Your task to perform on an android device: turn off location history Image 0: 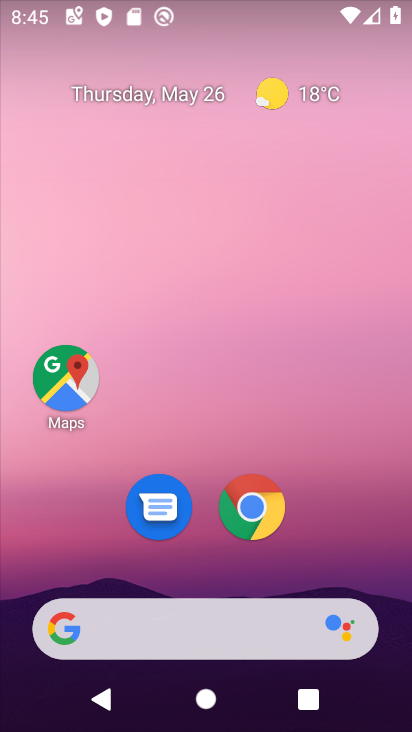
Step 0: press home button
Your task to perform on an android device: turn off location history Image 1: 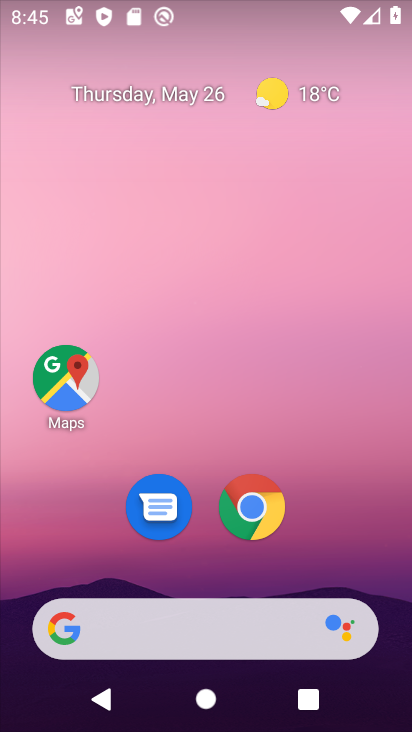
Step 1: drag from (260, 630) to (223, 44)
Your task to perform on an android device: turn off location history Image 2: 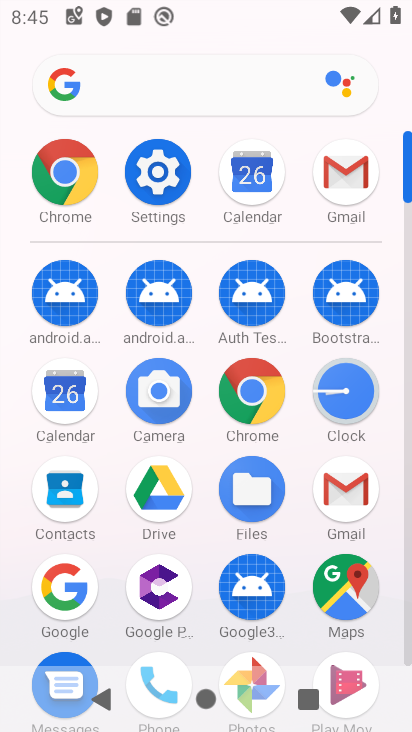
Step 2: click (161, 184)
Your task to perform on an android device: turn off location history Image 3: 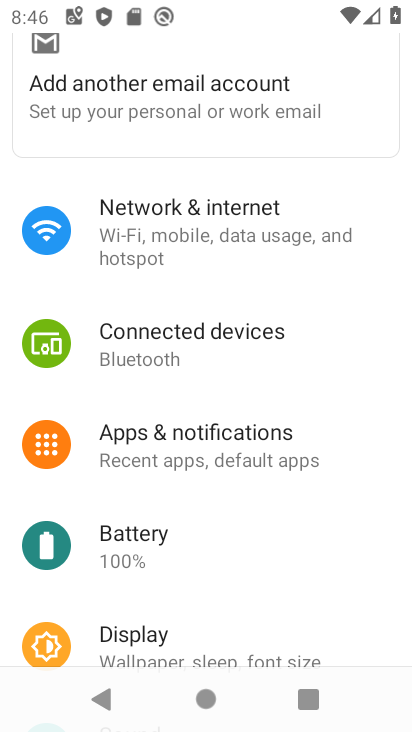
Step 3: drag from (202, 218) to (272, 440)
Your task to perform on an android device: turn off location history Image 4: 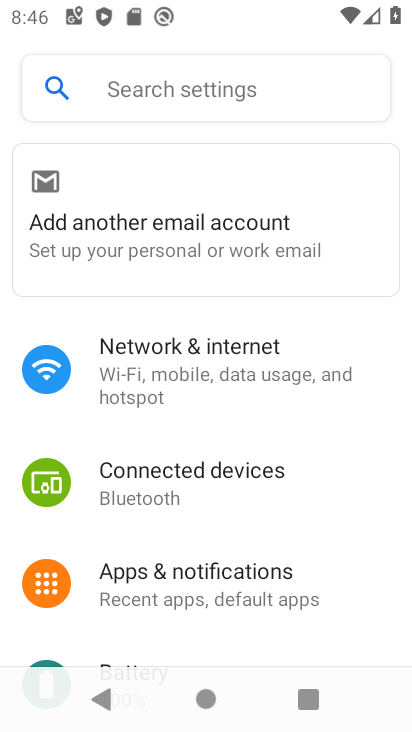
Step 4: click (231, 79)
Your task to perform on an android device: turn off location history Image 5: 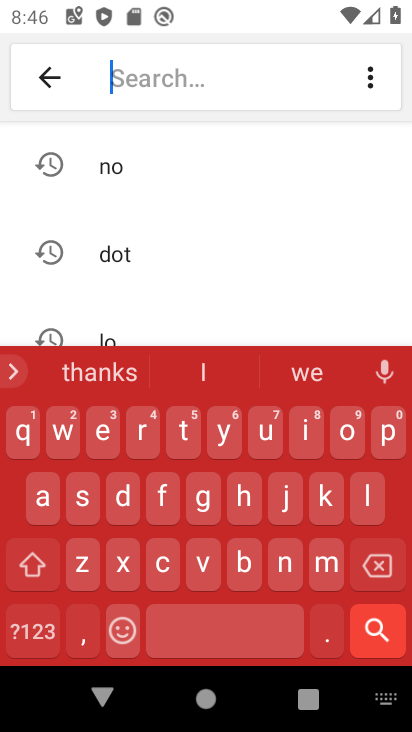
Step 5: click (367, 494)
Your task to perform on an android device: turn off location history Image 6: 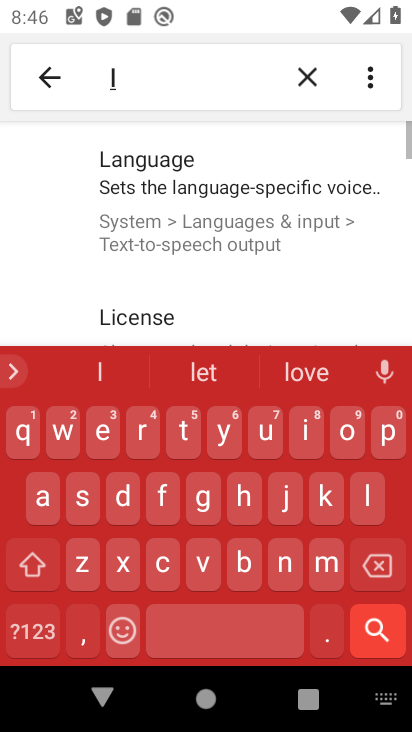
Step 6: click (352, 443)
Your task to perform on an android device: turn off location history Image 7: 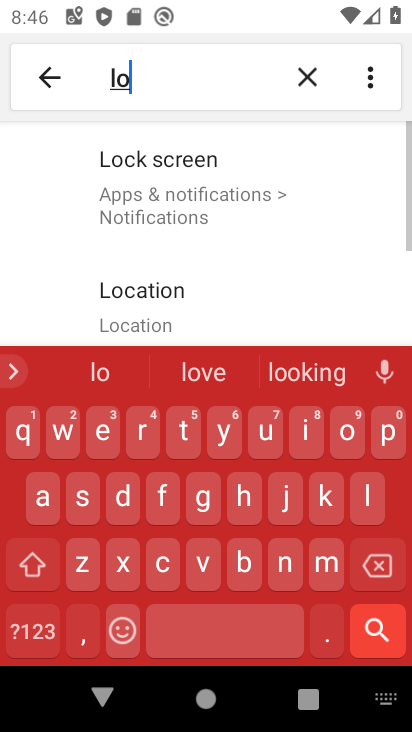
Step 7: click (180, 289)
Your task to perform on an android device: turn off location history Image 8: 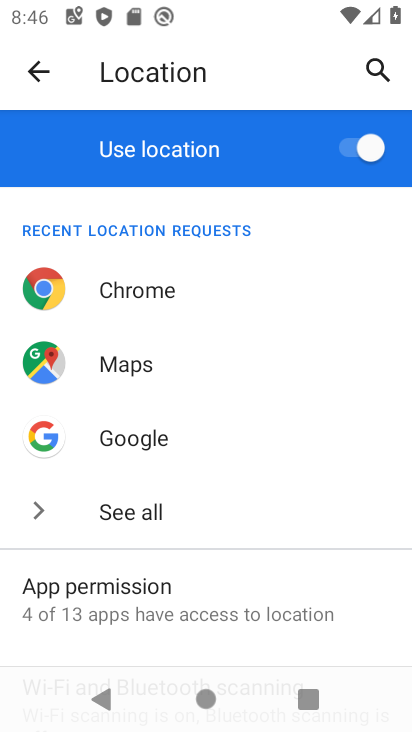
Step 8: drag from (150, 583) to (240, 332)
Your task to perform on an android device: turn off location history Image 9: 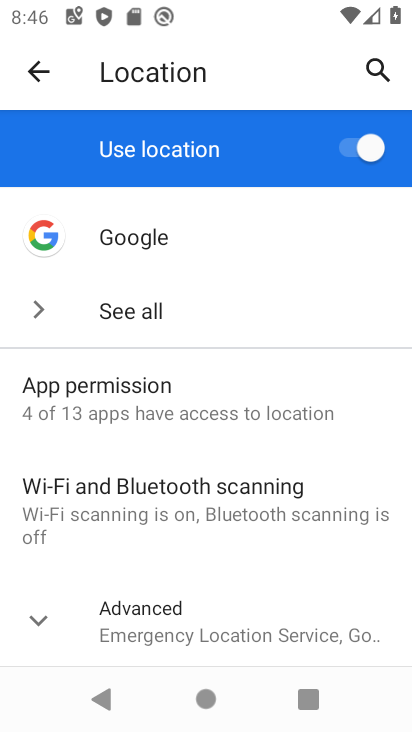
Step 9: click (35, 637)
Your task to perform on an android device: turn off location history Image 10: 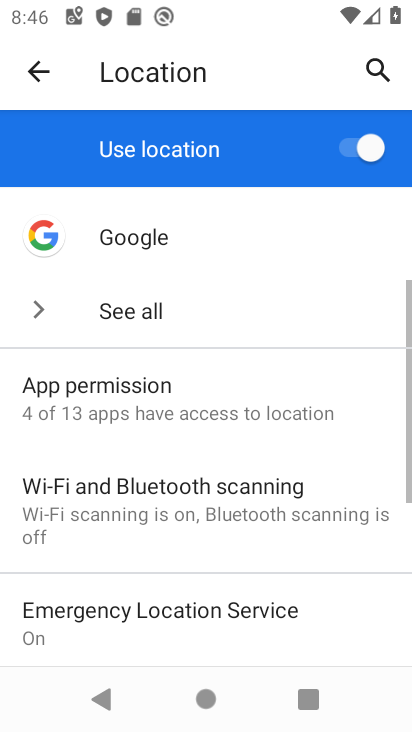
Step 10: drag from (178, 581) to (237, 366)
Your task to perform on an android device: turn off location history Image 11: 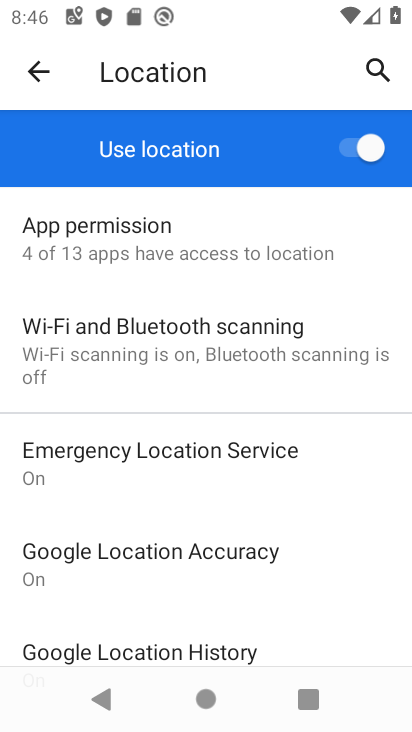
Step 11: click (202, 646)
Your task to perform on an android device: turn off location history Image 12: 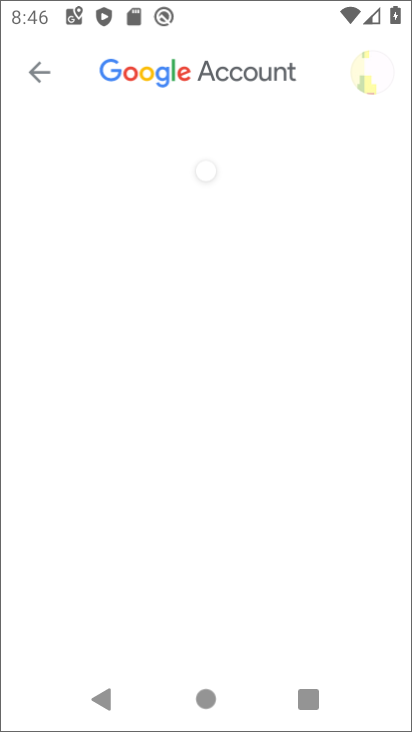
Step 12: drag from (246, 620) to (271, 200)
Your task to perform on an android device: turn off location history Image 13: 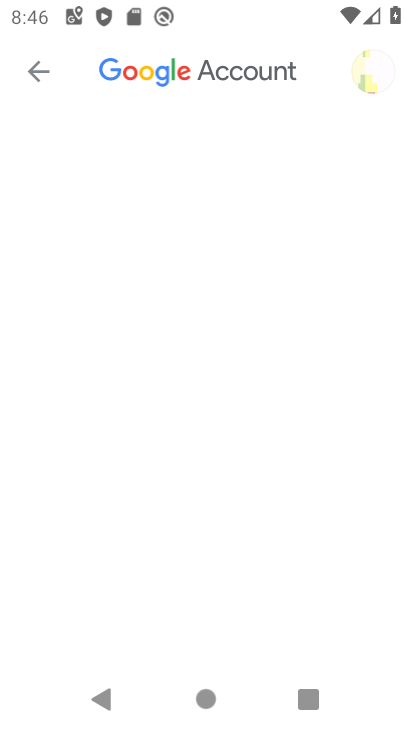
Step 13: drag from (277, 620) to (297, 253)
Your task to perform on an android device: turn off location history Image 14: 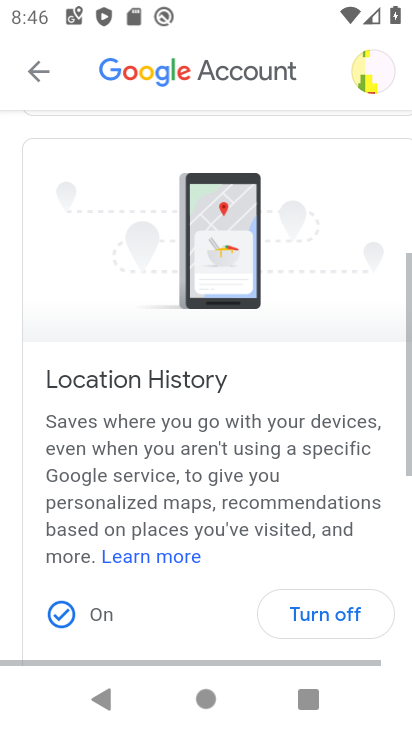
Step 14: drag from (250, 600) to (263, 504)
Your task to perform on an android device: turn off location history Image 15: 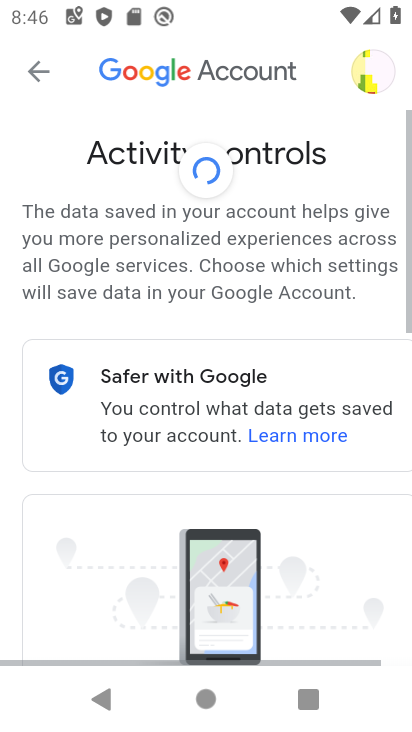
Step 15: click (327, 530)
Your task to perform on an android device: turn off location history Image 16: 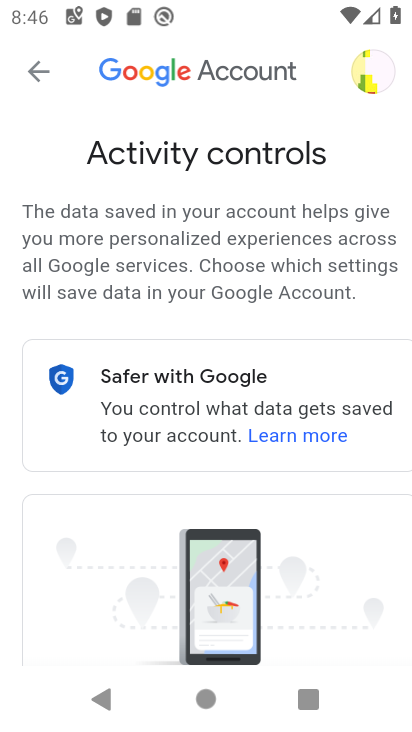
Step 16: task complete